Your task to perform on an android device: toggle translation in the chrome app Image 0: 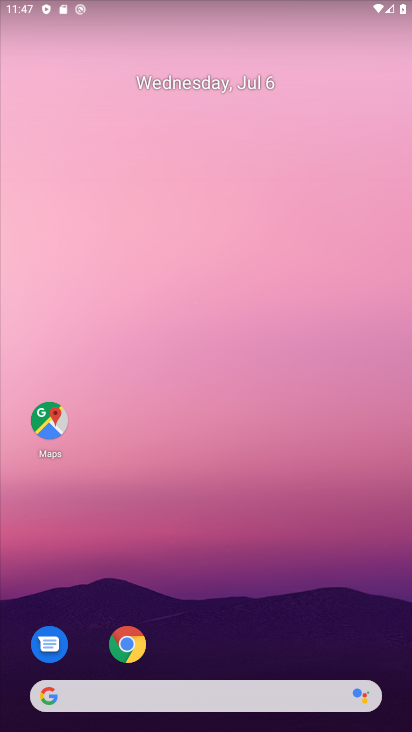
Step 0: click (124, 221)
Your task to perform on an android device: toggle translation in the chrome app Image 1: 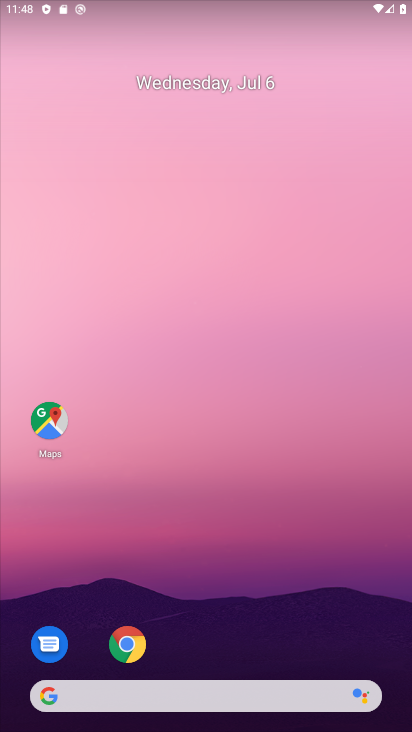
Step 1: click (125, 640)
Your task to perform on an android device: toggle translation in the chrome app Image 2: 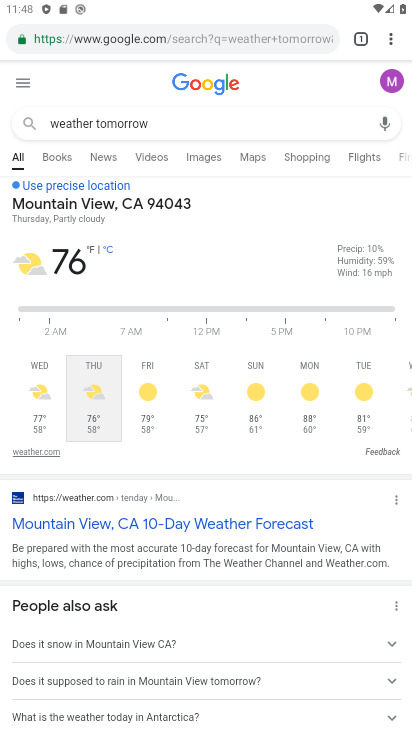
Step 2: drag from (396, 34) to (258, 432)
Your task to perform on an android device: toggle translation in the chrome app Image 3: 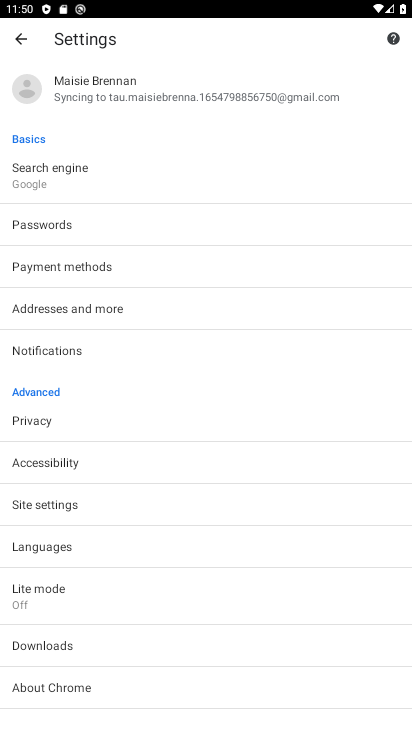
Step 3: drag from (149, 611) to (97, 374)
Your task to perform on an android device: toggle translation in the chrome app Image 4: 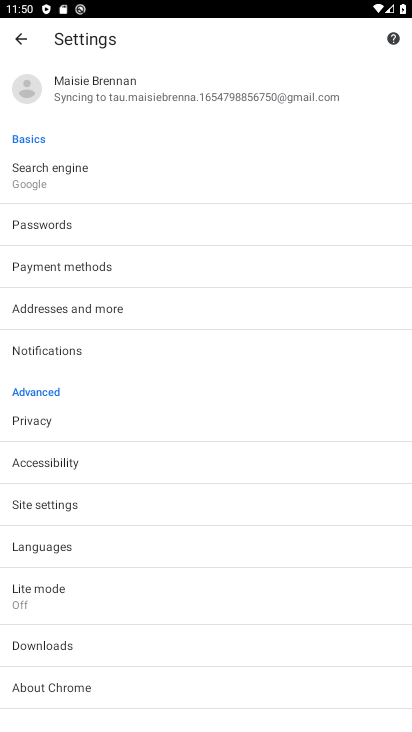
Step 4: click (98, 542)
Your task to perform on an android device: toggle translation in the chrome app Image 5: 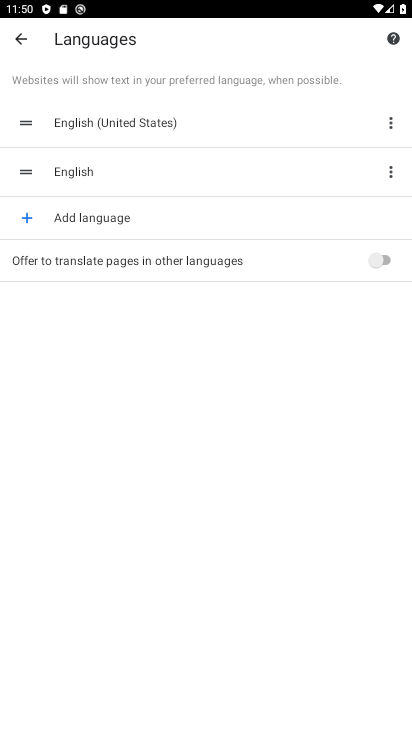
Step 5: click (386, 260)
Your task to perform on an android device: toggle translation in the chrome app Image 6: 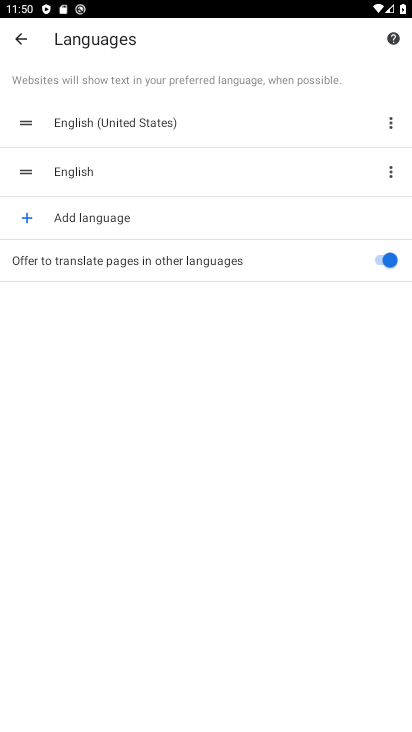
Step 6: task complete